Your task to perform on an android device: change keyboard looks Image 0: 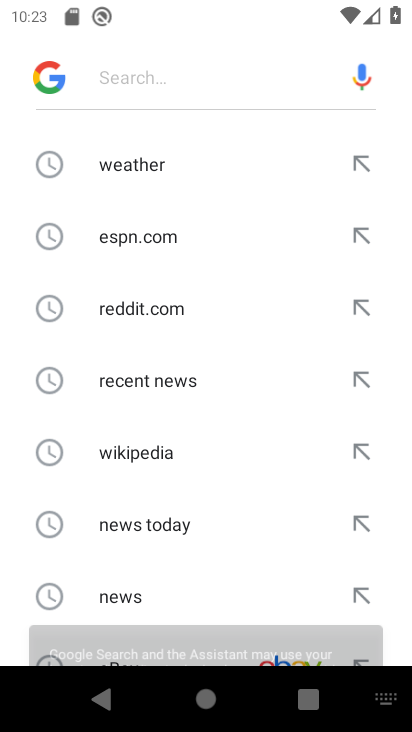
Step 0: press home button
Your task to perform on an android device: change keyboard looks Image 1: 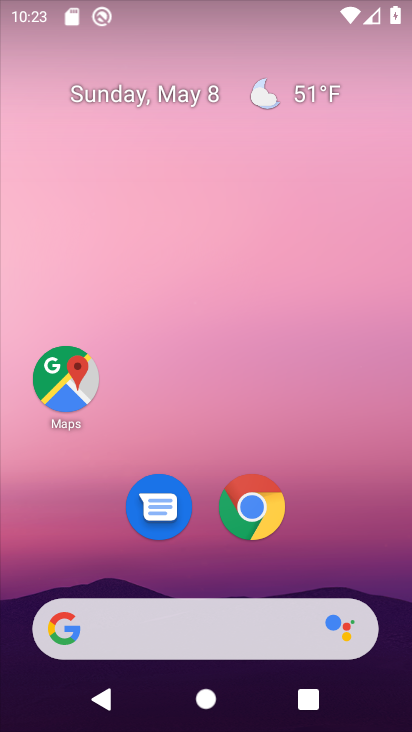
Step 1: drag from (205, 571) to (192, 142)
Your task to perform on an android device: change keyboard looks Image 2: 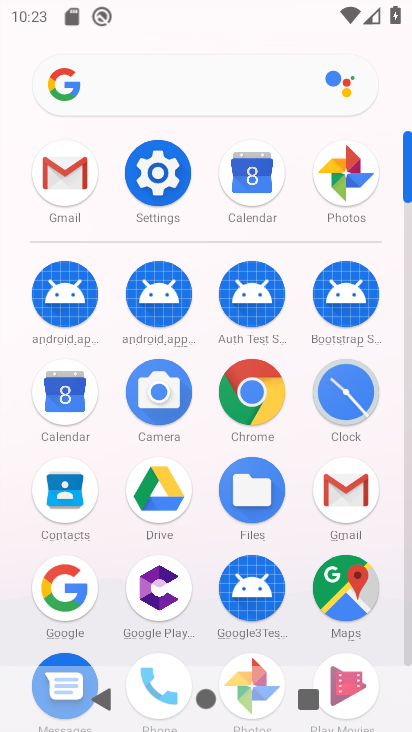
Step 2: click (153, 165)
Your task to perform on an android device: change keyboard looks Image 3: 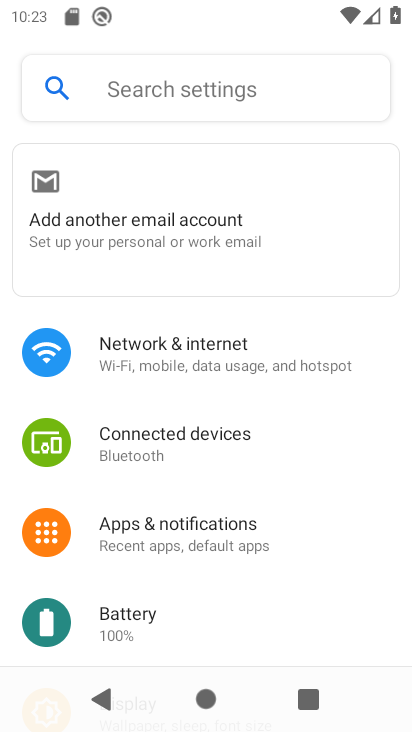
Step 3: drag from (229, 610) to (240, 122)
Your task to perform on an android device: change keyboard looks Image 4: 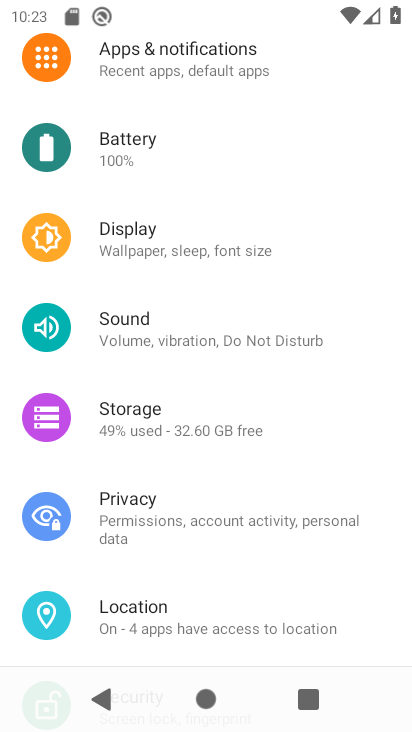
Step 4: drag from (217, 600) to (223, 58)
Your task to perform on an android device: change keyboard looks Image 5: 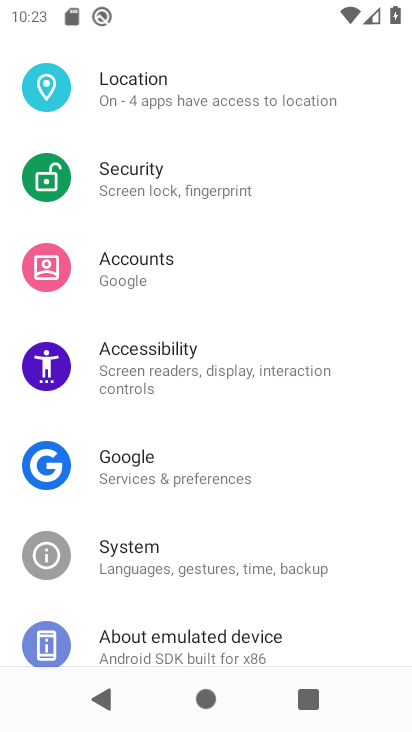
Step 5: click (174, 543)
Your task to perform on an android device: change keyboard looks Image 6: 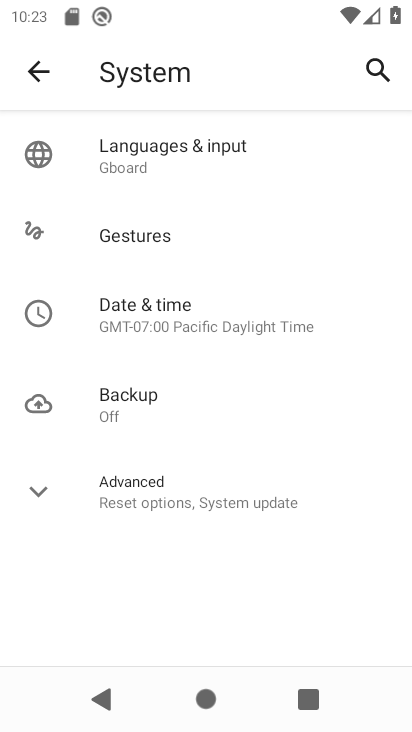
Step 6: click (89, 156)
Your task to perform on an android device: change keyboard looks Image 7: 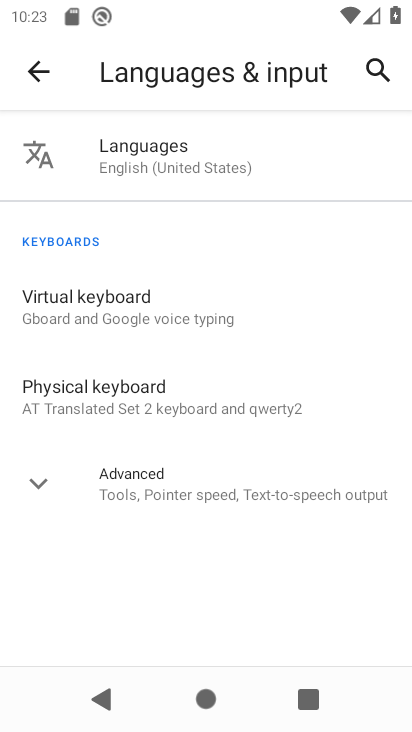
Step 7: click (158, 294)
Your task to perform on an android device: change keyboard looks Image 8: 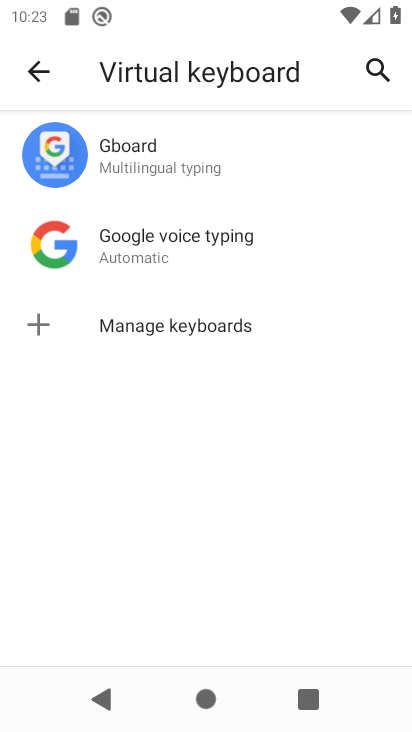
Step 8: click (167, 143)
Your task to perform on an android device: change keyboard looks Image 9: 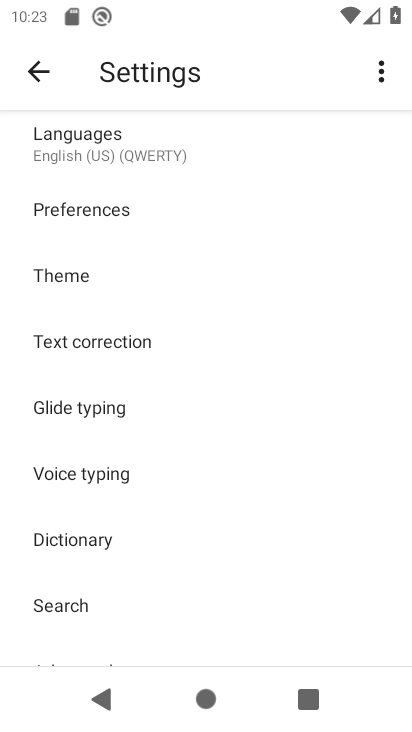
Step 9: click (105, 271)
Your task to perform on an android device: change keyboard looks Image 10: 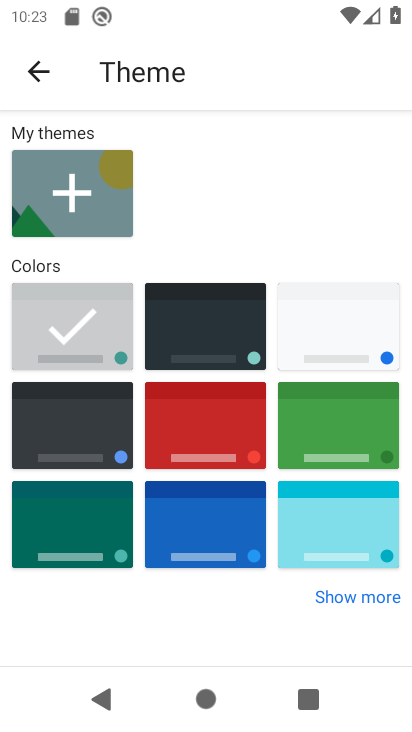
Step 10: click (197, 423)
Your task to perform on an android device: change keyboard looks Image 11: 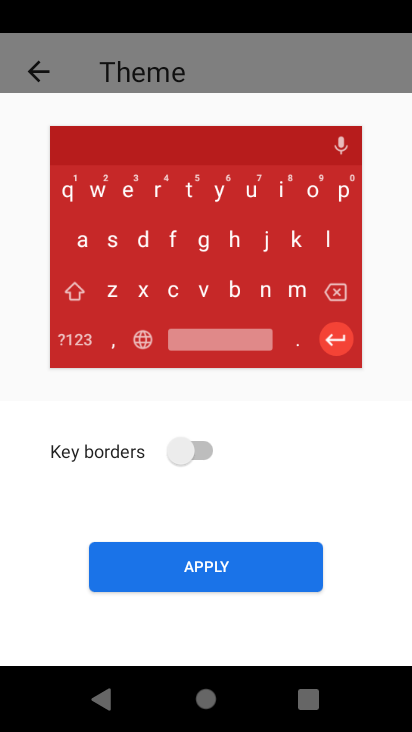
Step 11: click (204, 562)
Your task to perform on an android device: change keyboard looks Image 12: 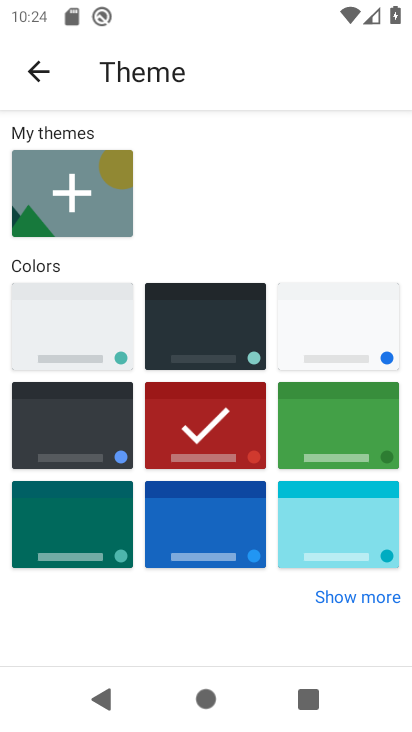
Step 12: task complete